Your task to perform on an android device: Open calendar and show me the second week of next month Image 0: 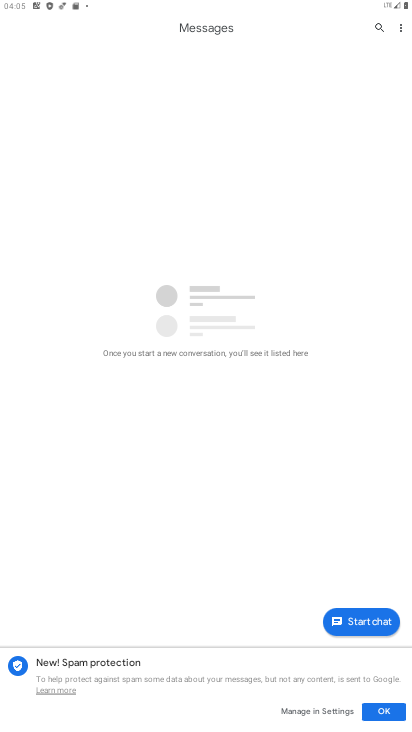
Step 0: press home button
Your task to perform on an android device: Open calendar and show me the second week of next month Image 1: 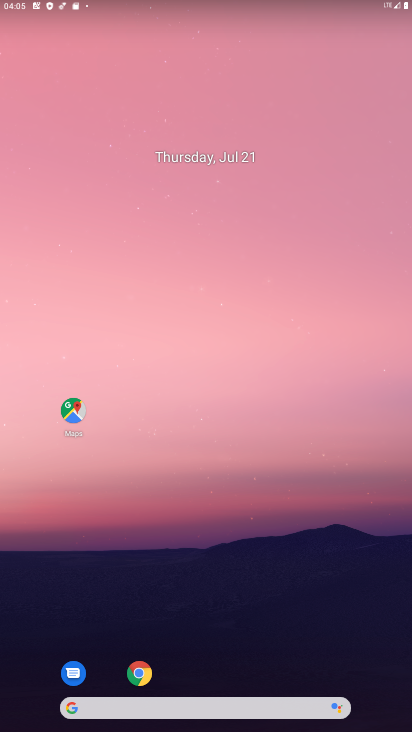
Step 1: drag from (245, 628) to (254, 129)
Your task to perform on an android device: Open calendar and show me the second week of next month Image 2: 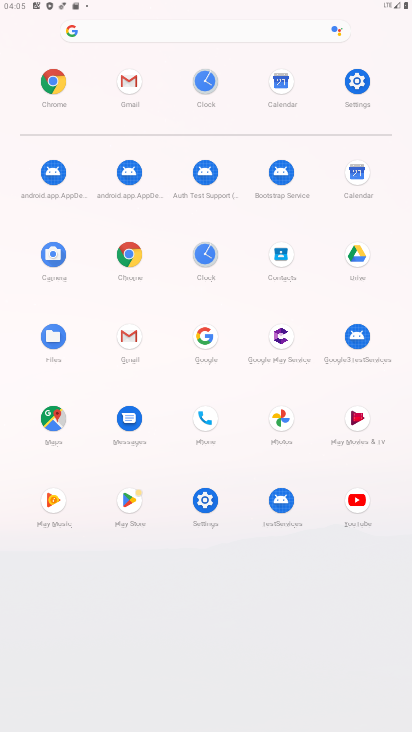
Step 2: click (374, 182)
Your task to perform on an android device: Open calendar and show me the second week of next month Image 3: 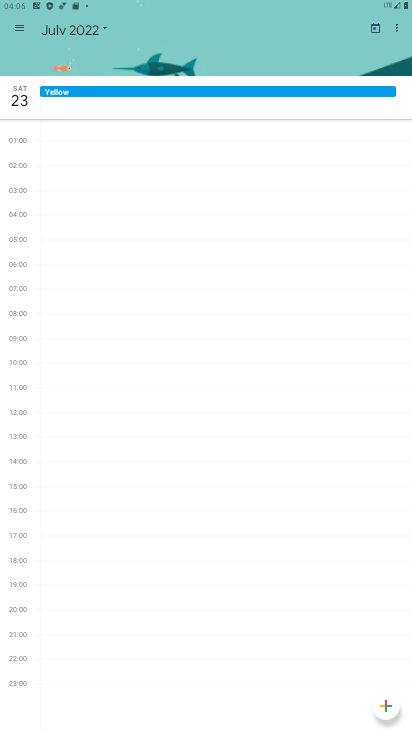
Step 3: click (20, 25)
Your task to perform on an android device: Open calendar and show me the second week of next month Image 4: 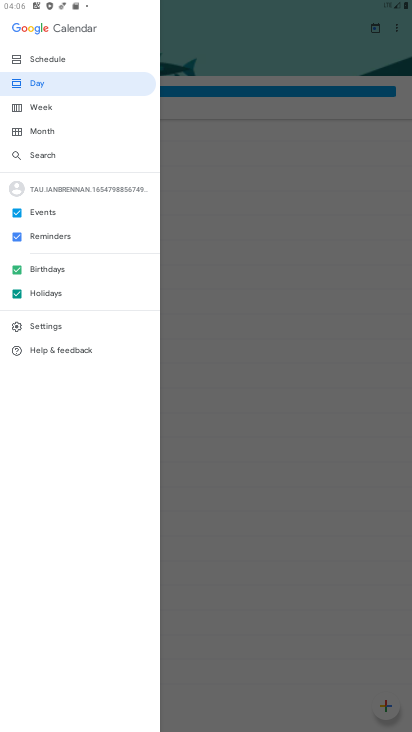
Step 4: click (42, 111)
Your task to perform on an android device: Open calendar and show me the second week of next month Image 5: 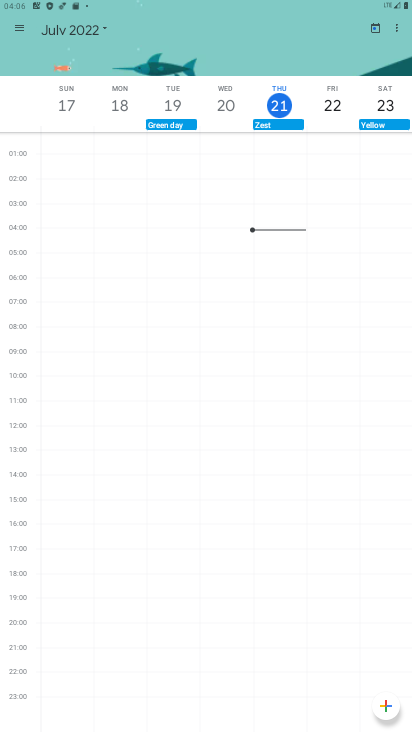
Step 5: click (87, 34)
Your task to perform on an android device: Open calendar and show me the second week of next month Image 6: 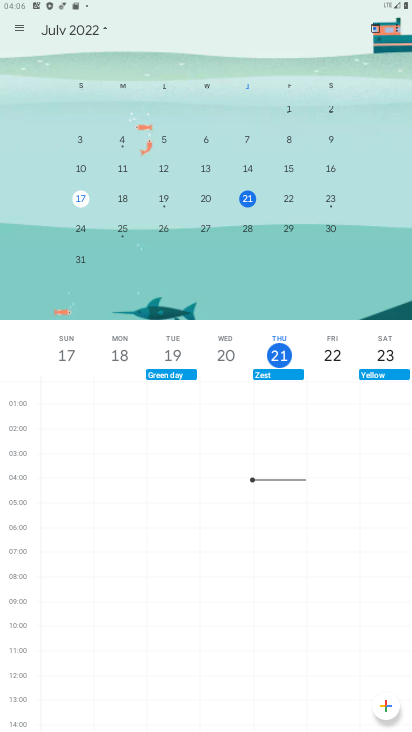
Step 6: click (172, 233)
Your task to perform on an android device: Open calendar and show me the second week of next month Image 7: 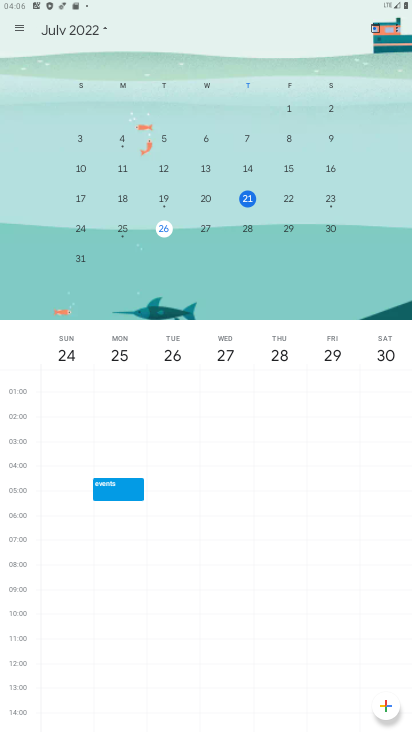
Step 7: drag from (328, 194) to (104, 161)
Your task to perform on an android device: Open calendar and show me the second week of next month Image 8: 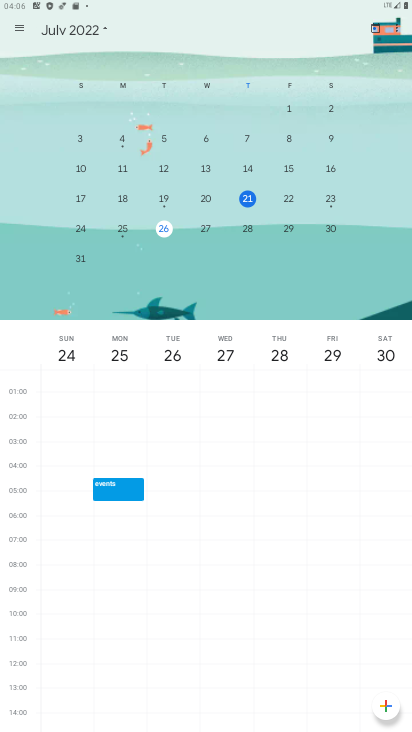
Step 8: drag from (324, 167) to (67, 169)
Your task to perform on an android device: Open calendar and show me the second week of next month Image 9: 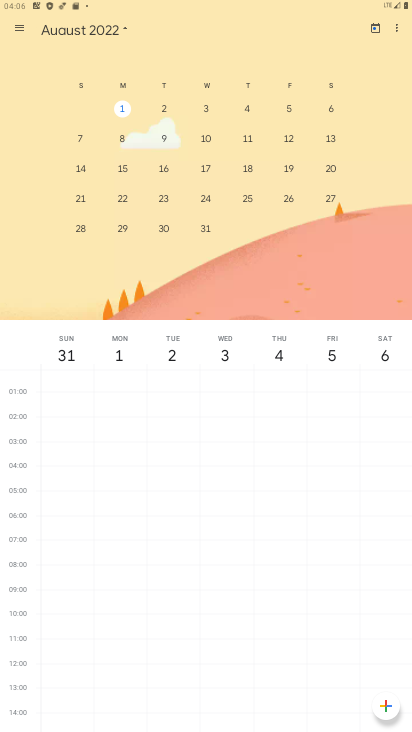
Step 9: click (212, 138)
Your task to perform on an android device: Open calendar and show me the second week of next month Image 10: 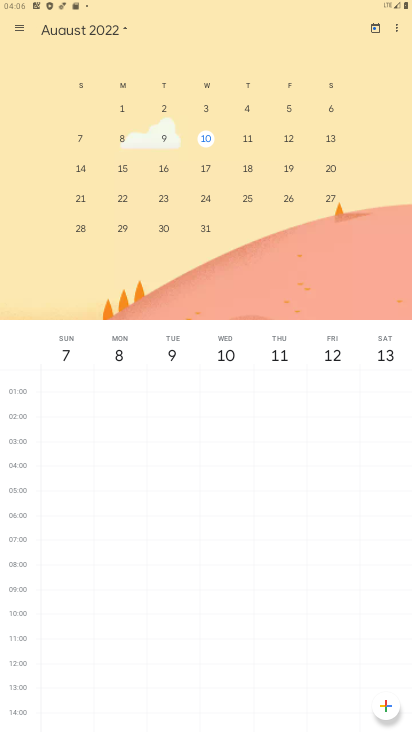
Step 10: task complete